Your task to perform on an android device: Show me popular videos on Youtube Image 0: 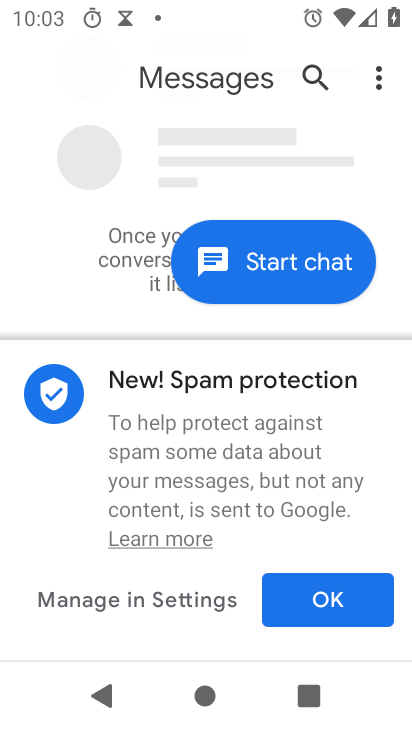
Step 0: press home button
Your task to perform on an android device: Show me popular videos on Youtube Image 1: 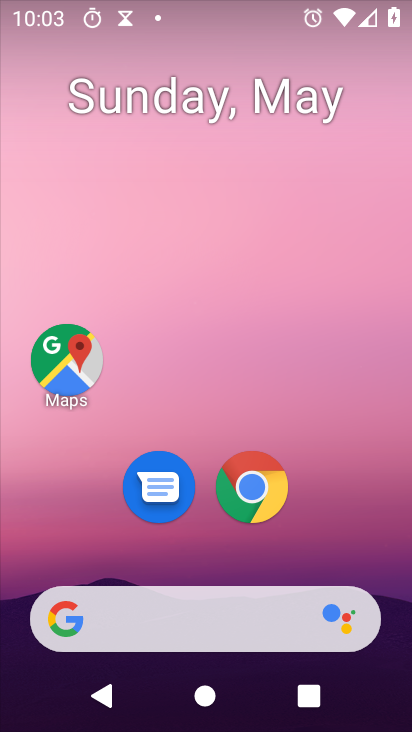
Step 1: drag from (357, 482) to (393, 124)
Your task to perform on an android device: Show me popular videos on Youtube Image 2: 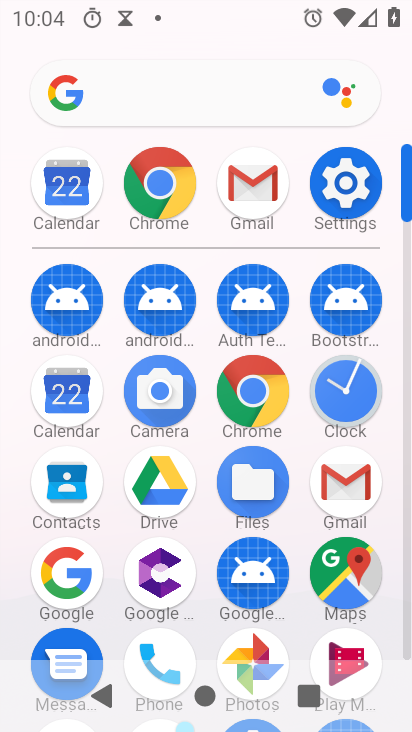
Step 2: drag from (387, 581) to (412, 329)
Your task to perform on an android device: Show me popular videos on Youtube Image 3: 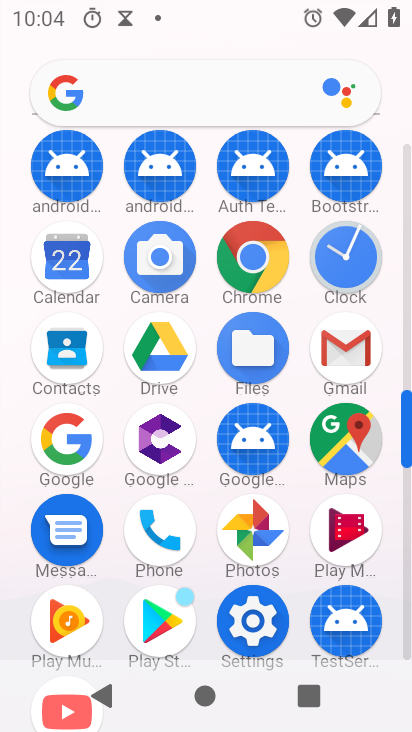
Step 3: drag from (391, 611) to (395, 344)
Your task to perform on an android device: Show me popular videos on Youtube Image 4: 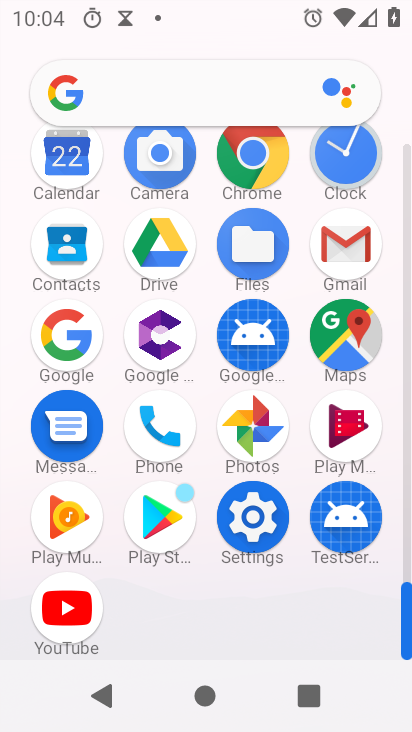
Step 4: click (83, 616)
Your task to perform on an android device: Show me popular videos on Youtube Image 5: 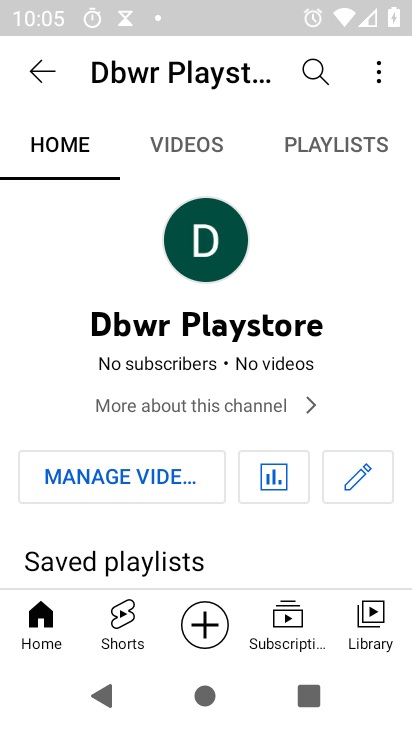
Step 5: click (37, 69)
Your task to perform on an android device: Show me popular videos on Youtube Image 6: 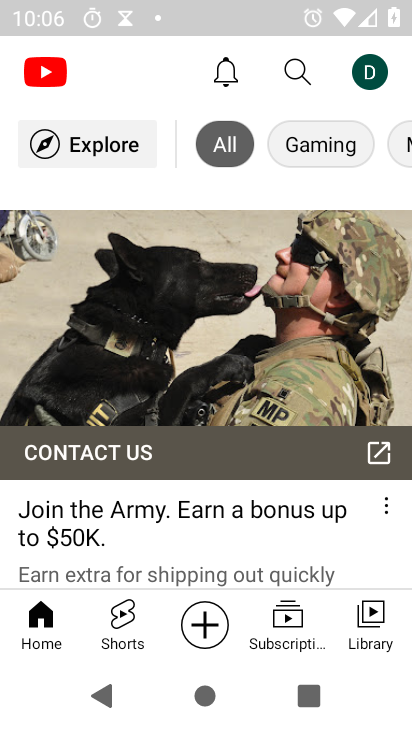
Step 6: click (288, 72)
Your task to perform on an android device: Show me popular videos on Youtube Image 7: 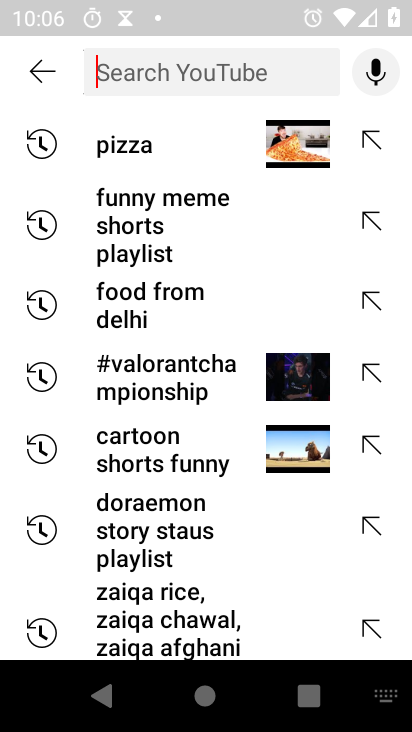
Step 7: type "popular video"
Your task to perform on an android device: Show me popular videos on Youtube Image 8: 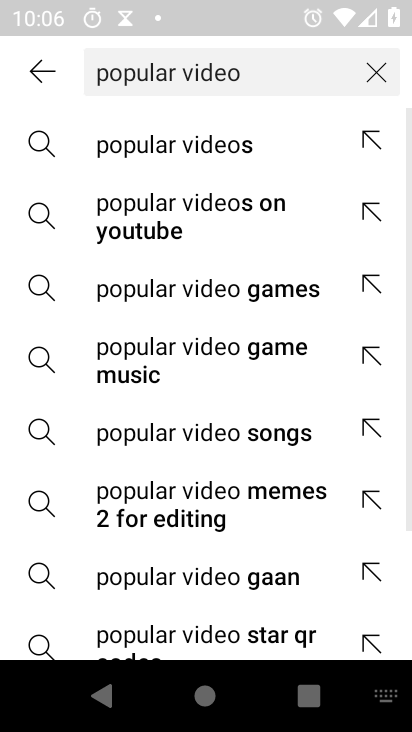
Step 8: click (187, 146)
Your task to perform on an android device: Show me popular videos on Youtube Image 9: 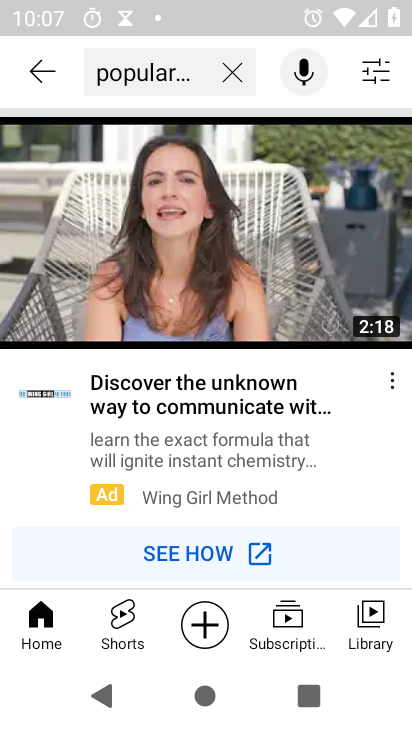
Step 9: task complete